Your task to perform on an android device: Set the phone to "Do not disturb". Image 0: 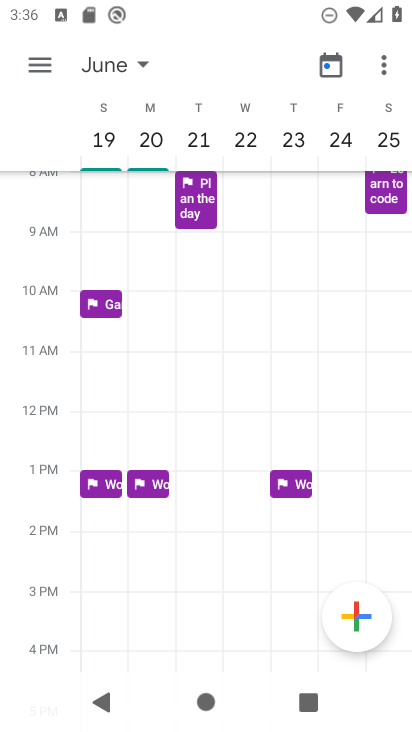
Step 0: press home button
Your task to perform on an android device: Set the phone to "Do not disturb". Image 1: 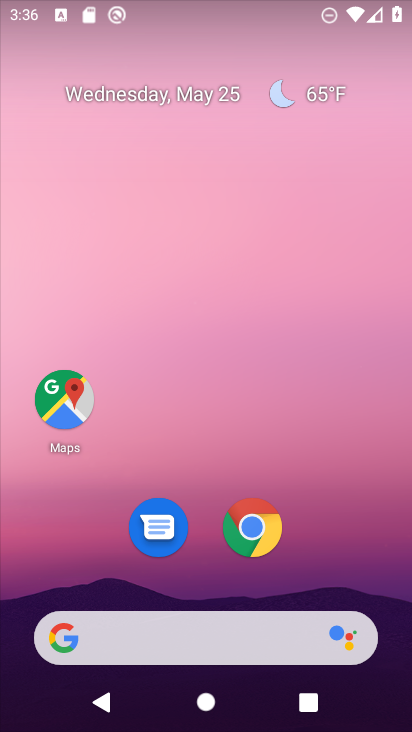
Step 1: drag from (289, 625) to (277, 91)
Your task to perform on an android device: Set the phone to "Do not disturb". Image 2: 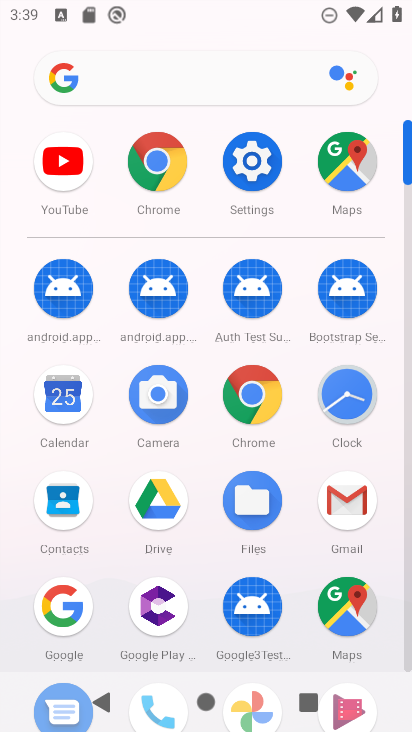
Step 2: click (263, 174)
Your task to perform on an android device: Set the phone to "Do not disturb". Image 3: 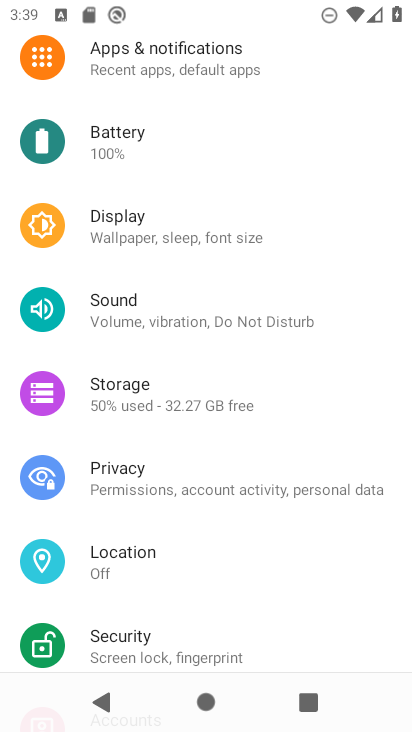
Step 3: click (214, 305)
Your task to perform on an android device: Set the phone to "Do not disturb". Image 4: 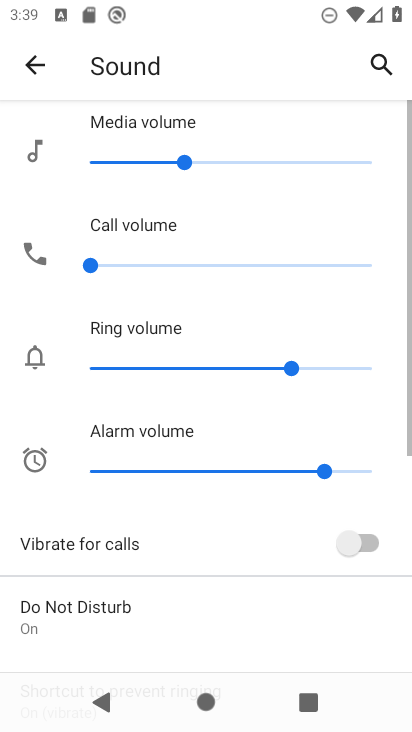
Step 4: drag from (268, 633) to (324, 103)
Your task to perform on an android device: Set the phone to "Do not disturb". Image 5: 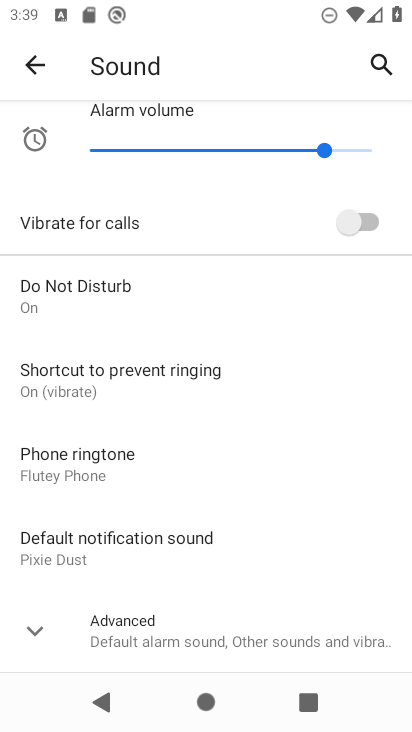
Step 5: click (118, 288)
Your task to perform on an android device: Set the phone to "Do not disturb". Image 6: 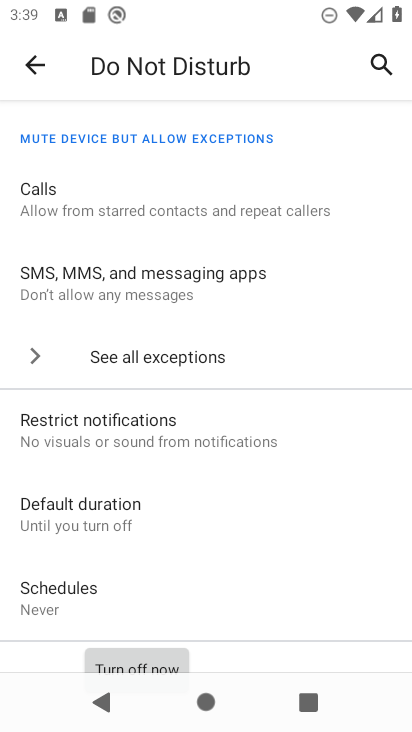
Step 6: task complete